Your task to perform on an android device: turn pop-ups on in chrome Image 0: 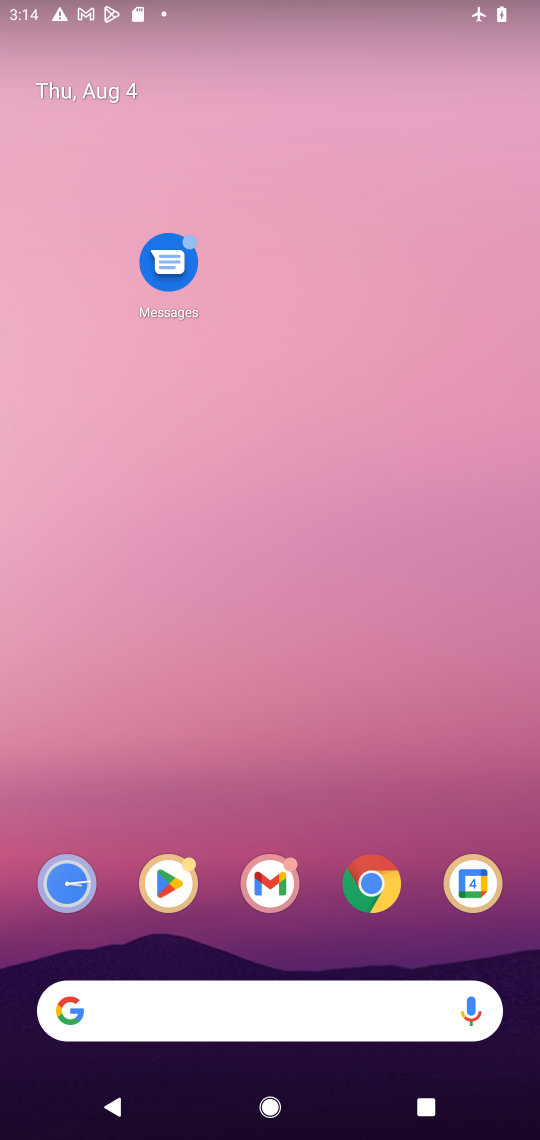
Step 0: click (362, 886)
Your task to perform on an android device: turn pop-ups on in chrome Image 1: 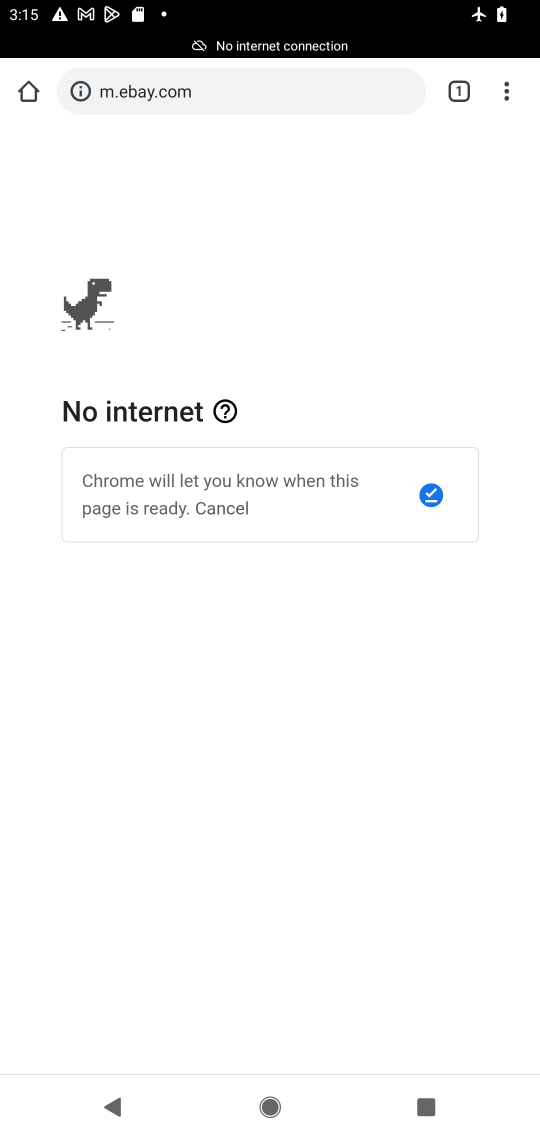
Step 1: click (504, 97)
Your task to perform on an android device: turn pop-ups on in chrome Image 2: 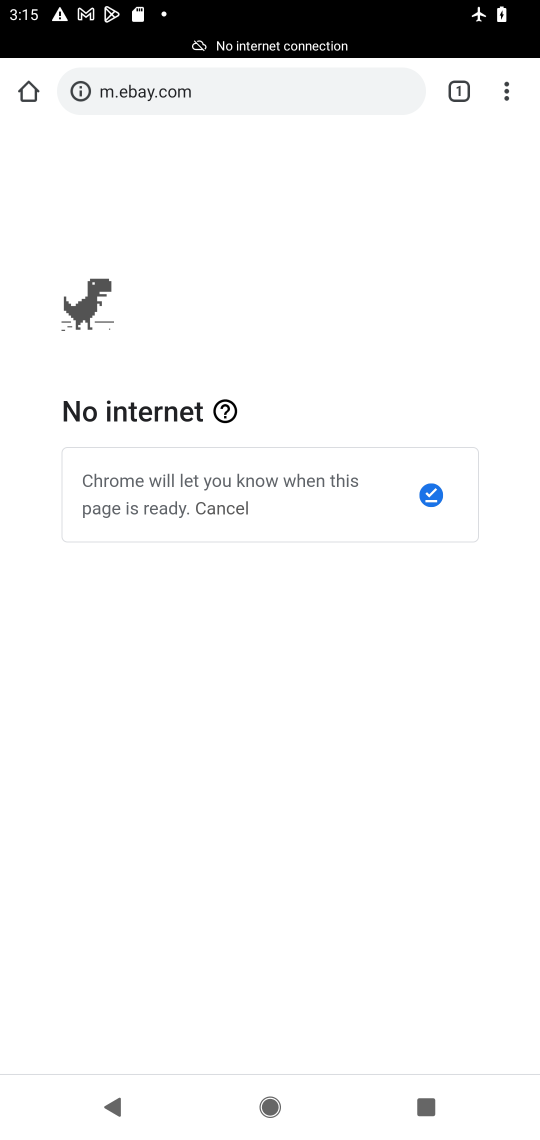
Step 2: click (502, 103)
Your task to perform on an android device: turn pop-ups on in chrome Image 3: 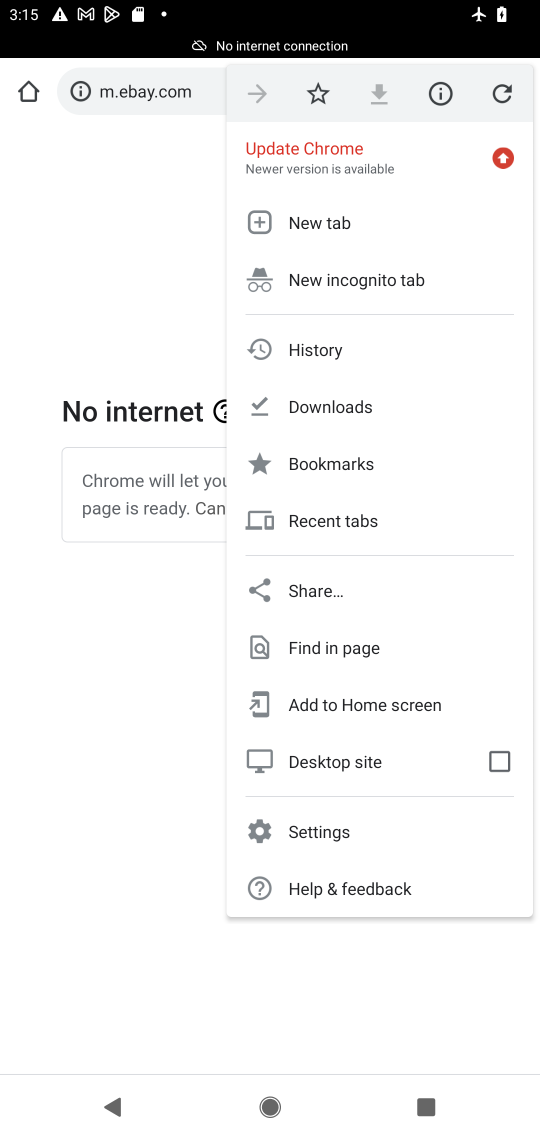
Step 3: click (301, 831)
Your task to perform on an android device: turn pop-ups on in chrome Image 4: 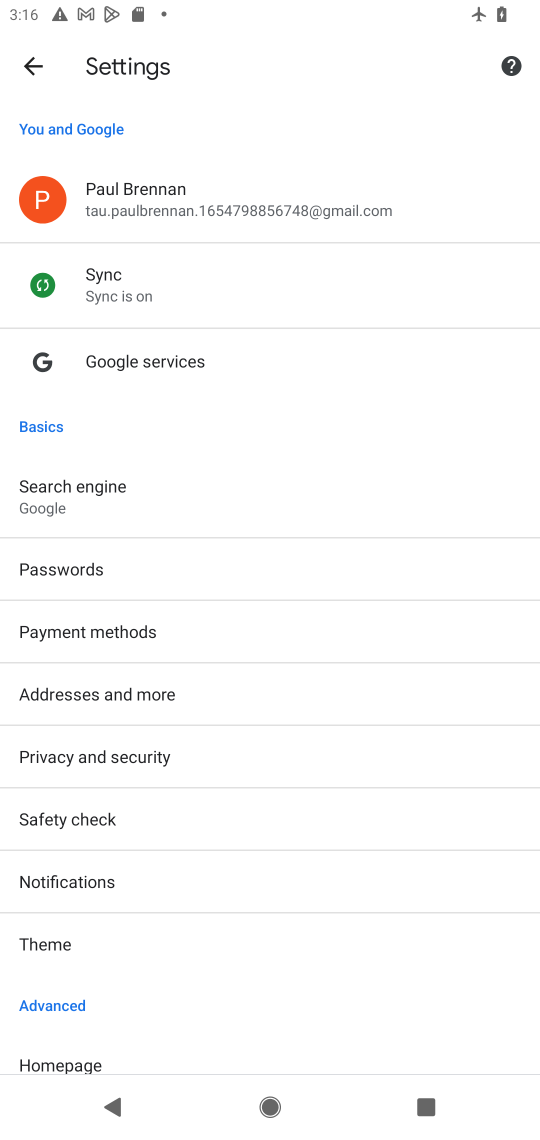
Step 4: drag from (143, 1006) to (143, 504)
Your task to perform on an android device: turn pop-ups on in chrome Image 5: 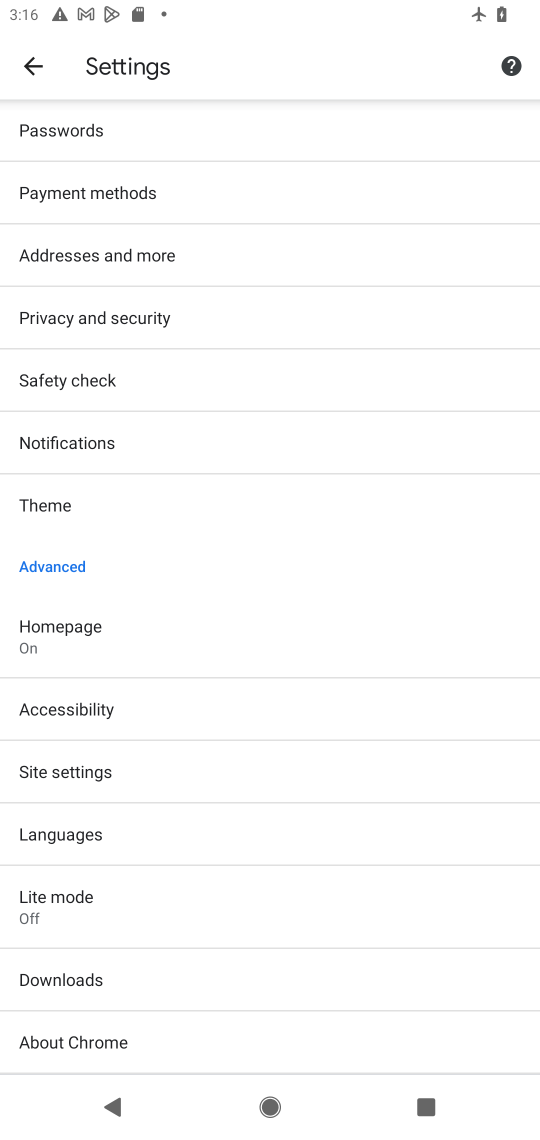
Step 5: click (63, 772)
Your task to perform on an android device: turn pop-ups on in chrome Image 6: 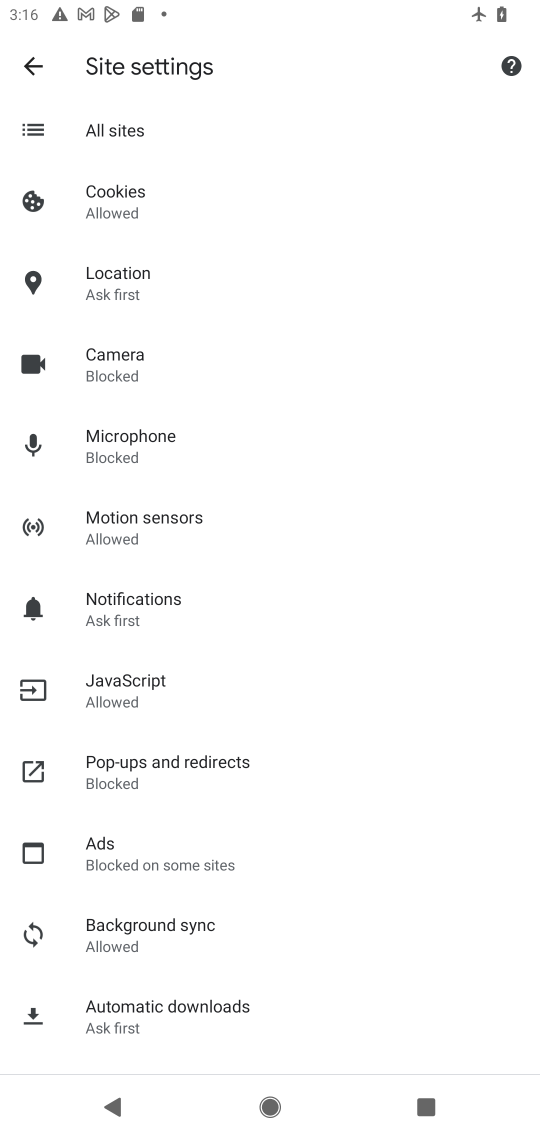
Step 6: click (119, 763)
Your task to perform on an android device: turn pop-ups on in chrome Image 7: 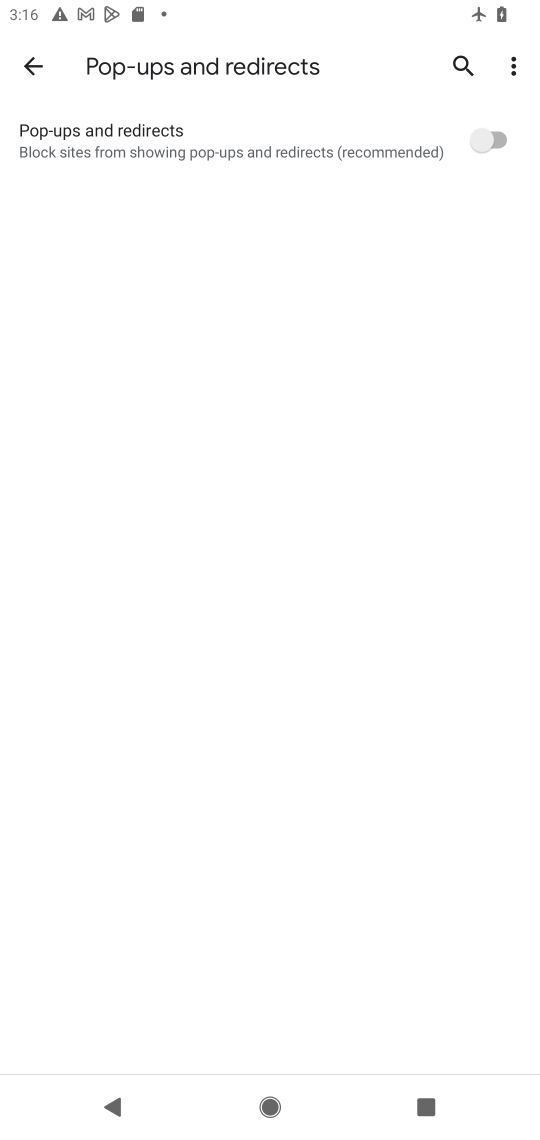
Step 7: click (494, 141)
Your task to perform on an android device: turn pop-ups on in chrome Image 8: 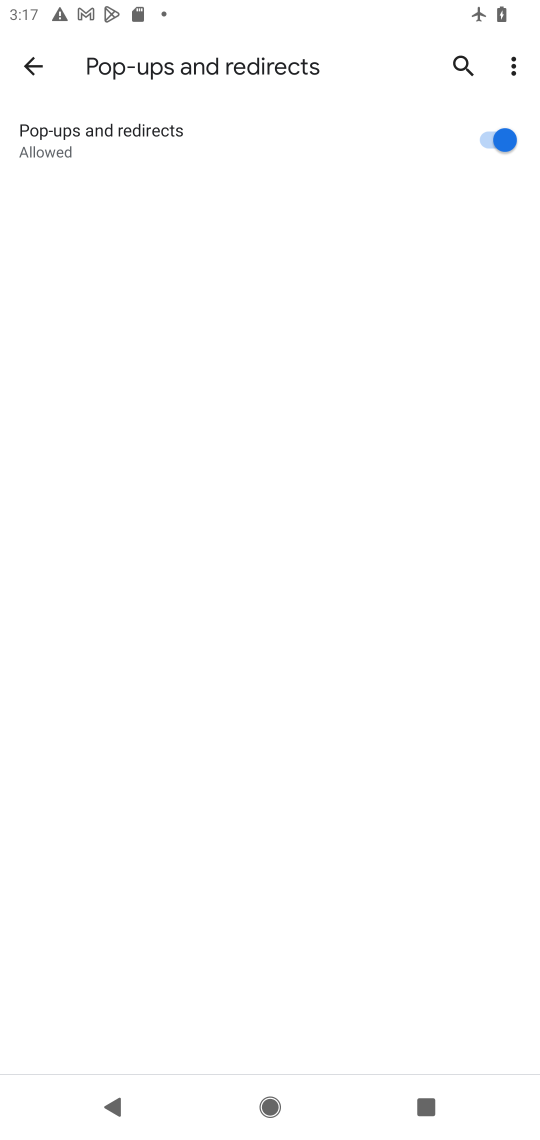
Step 8: task complete